Your task to perform on an android device: Open Chrome and go to settings Image 0: 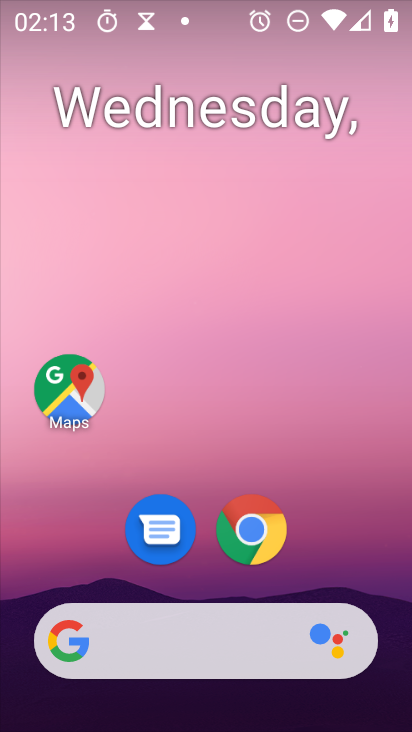
Step 0: drag from (243, 671) to (296, 66)
Your task to perform on an android device: Open Chrome and go to settings Image 1: 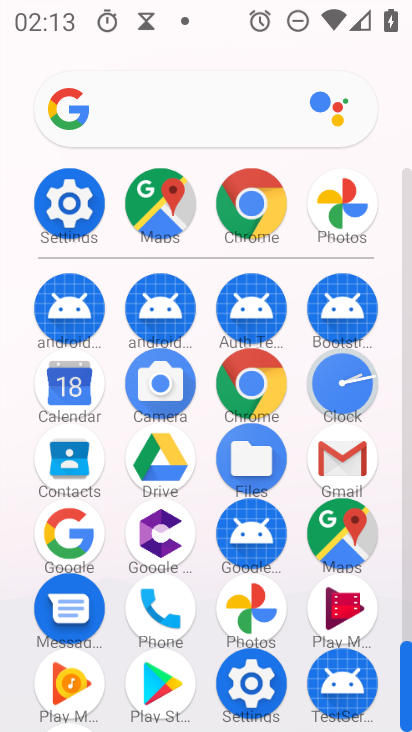
Step 1: click (263, 386)
Your task to perform on an android device: Open Chrome and go to settings Image 2: 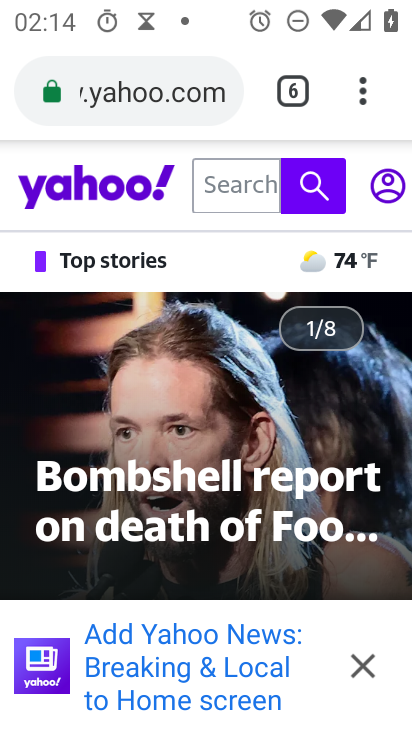
Step 2: task complete